Your task to perform on an android device: star an email in the gmail app Image 0: 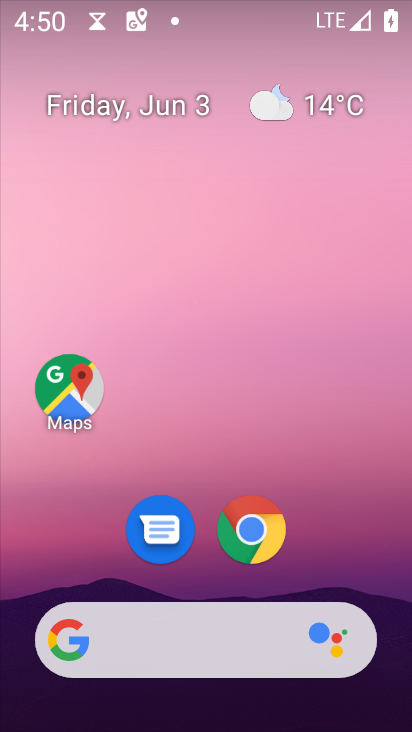
Step 0: drag from (346, 526) to (282, 0)
Your task to perform on an android device: star an email in the gmail app Image 1: 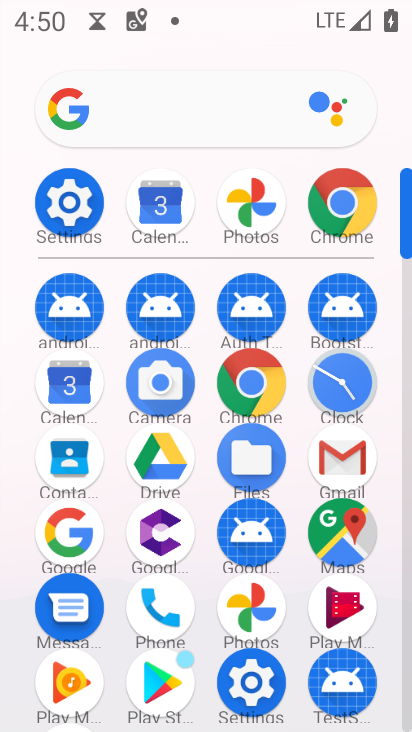
Step 1: click (355, 459)
Your task to perform on an android device: star an email in the gmail app Image 2: 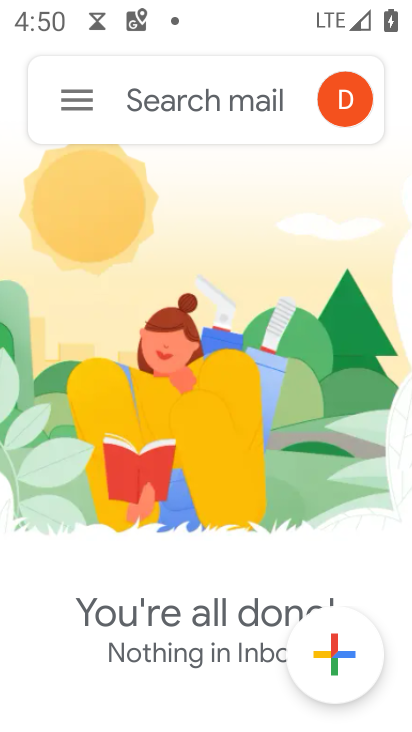
Step 2: task complete